Your task to perform on an android device: Open the web browser Image 0: 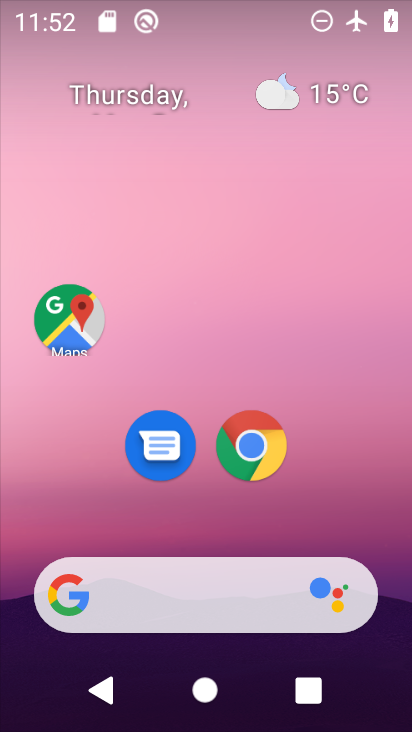
Step 0: click (262, 453)
Your task to perform on an android device: Open the web browser Image 1: 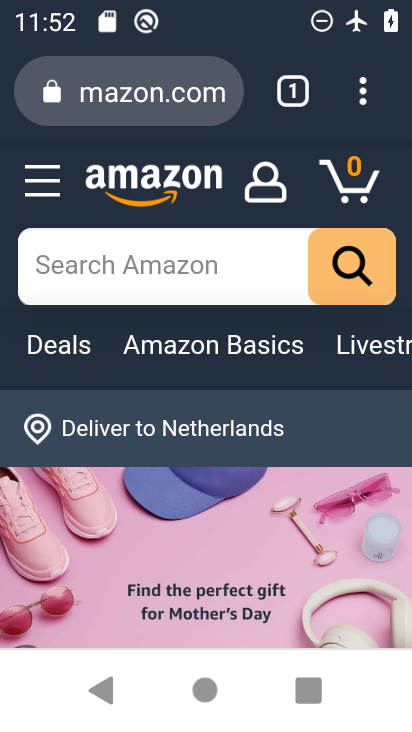
Step 1: task complete